Your task to perform on an android device: Open settings Image 0: 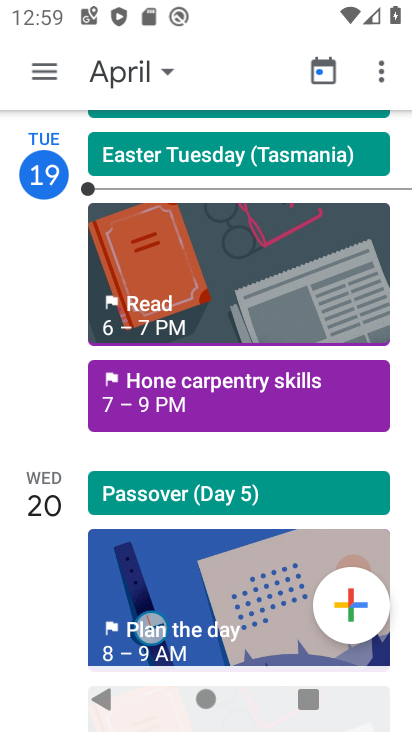
Step 0: press home button
Your task to perform on an android device: Open settings Image 1: 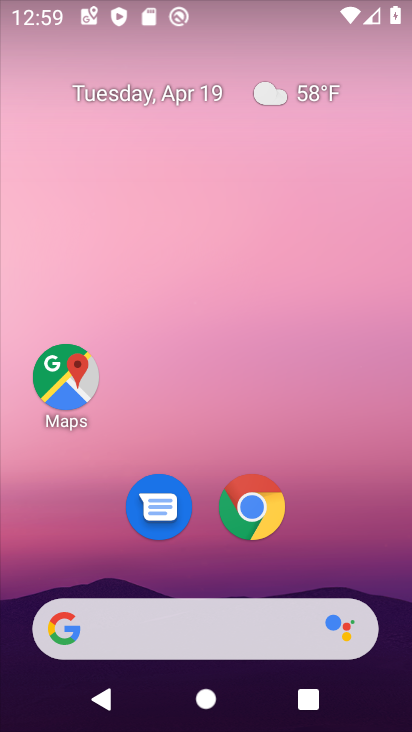
Step 1: drag from (208, 540) to (287, 120)
Your task to perform on an android device: Open settings Image 2: 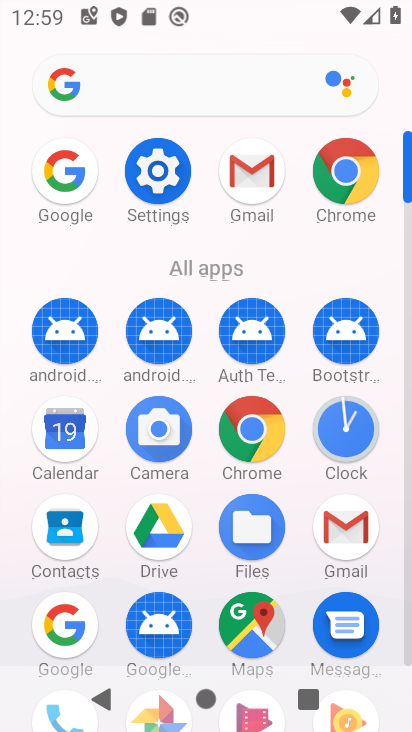
Step 2: click (150, 178)
Your task to perform on an android device: Open settings Image 3: 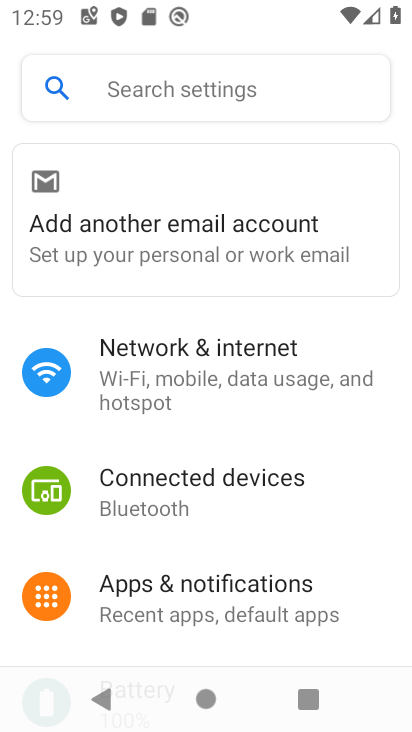
Step 3: task complete